Your task to perform on an android device: turn on sleep mode Image 0: 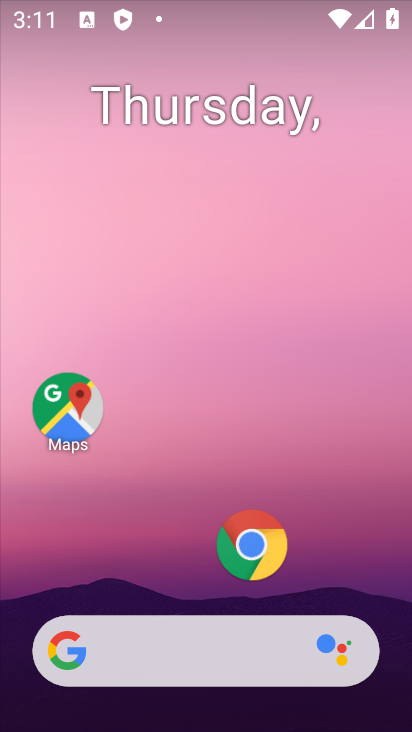
Step 0: drag from (242, 639) to (325, 99)
Your task to perform on an android device: turn on sleep mode Image 1: 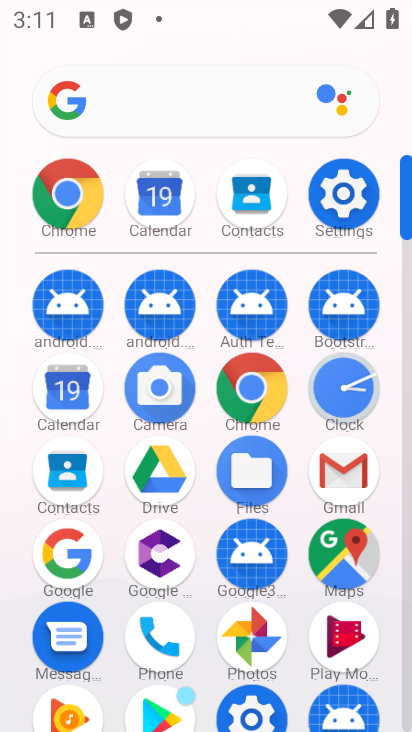
Step 1: click (339, 210)
Your task to perform on an android device: turn on sleep mode Image 2: 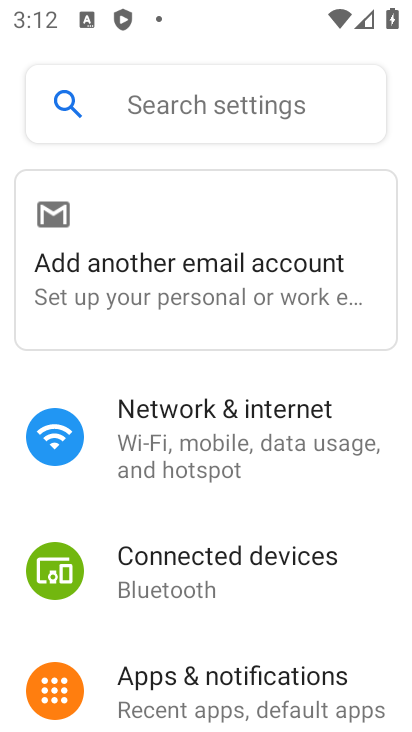
Step 2: drag from (261, 683) to (273, 346)
Your task to perform on an android device: turn on sleep mode Image 3: 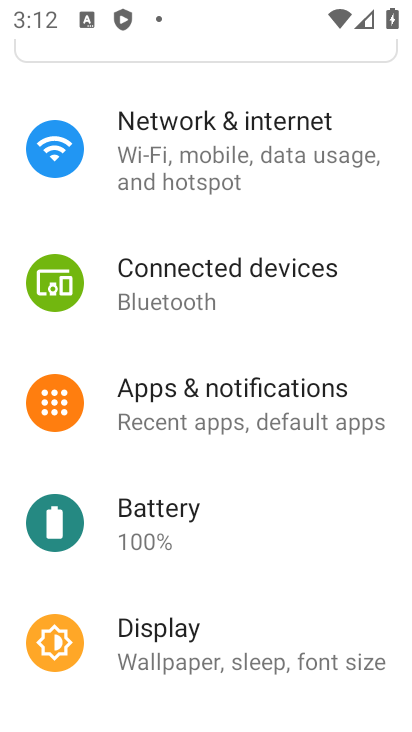
Step 3: click (281, 657)
Your task to perform on an android device: turn on sleep mode Image 4: 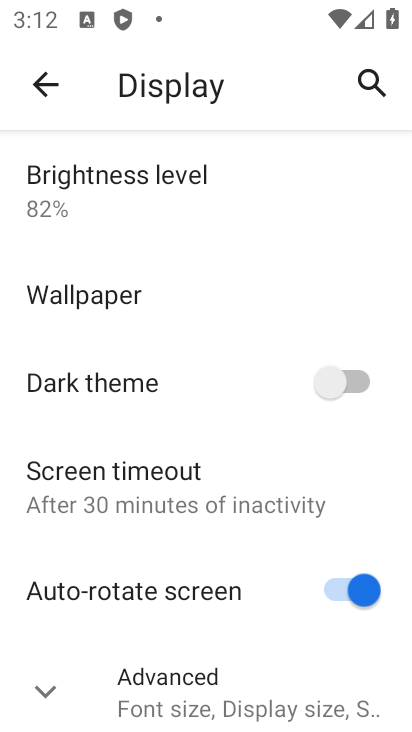
Step 4: task complete